Your task to perform on an android device: snooze an email in the gmail app Image 0: 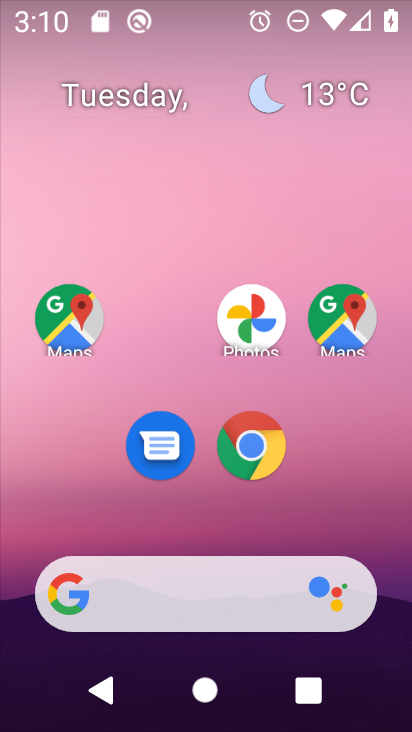
Step 0: drag from (354, 523) to (358, 201)
Your task to perform on an android device: snooze an email in the gmail app Image 1: 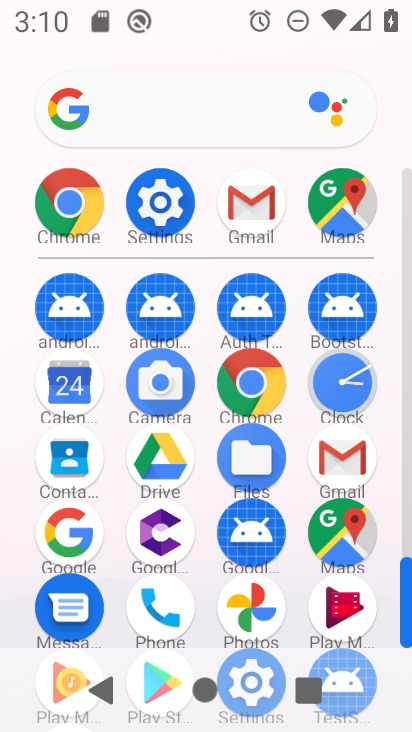
Step 1: click (354, 469)
Your task to perform on an android device: snooze an email in the gmail app Image 2: 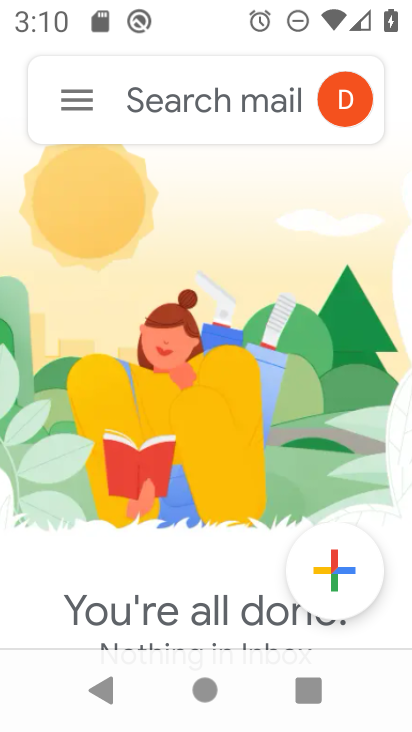
Step 2: click (67, 97)
Your task to perform on an android device: snooze an email in the gmail app Image 3: 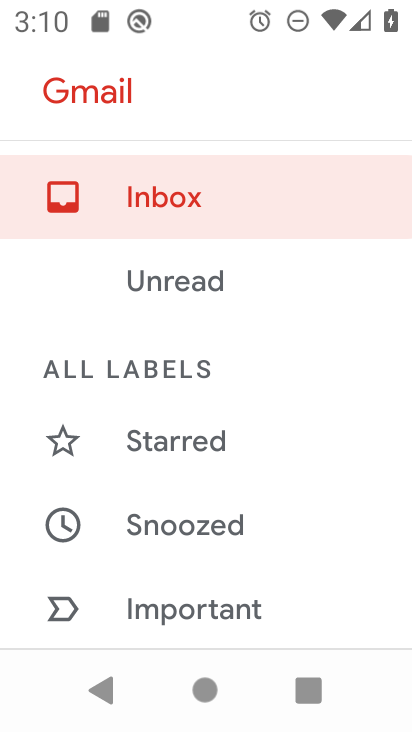
Step 3: drag from (301, 477) to (311, 374)
Your task to perform on an android device: snooze an email in the gmail app Image 4: 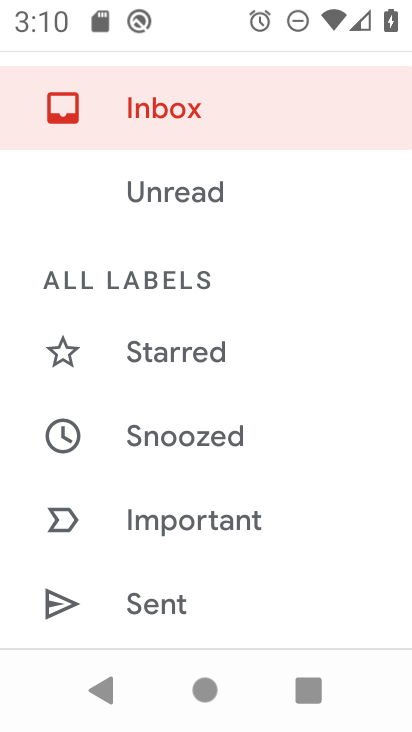
Step 4: drag from (328, 553) to (332, 441)
Your task to perform on an android device: snooze an email in the gmail app Image 5: 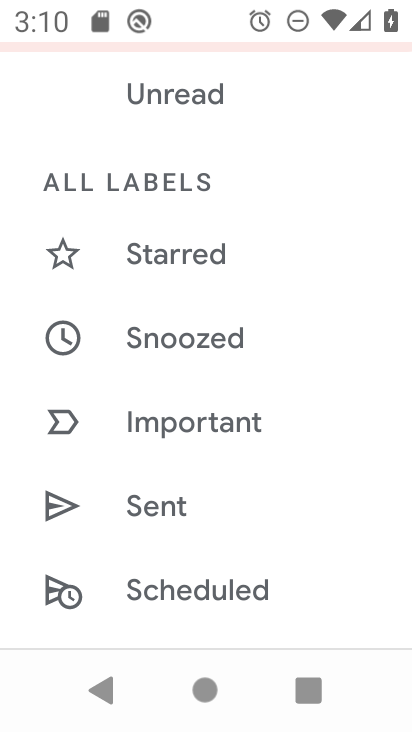
Step 5: drag from (325, 586) to (325, 451)
Your task to perform on an android device: snooze an email in the gmail app Image 6: 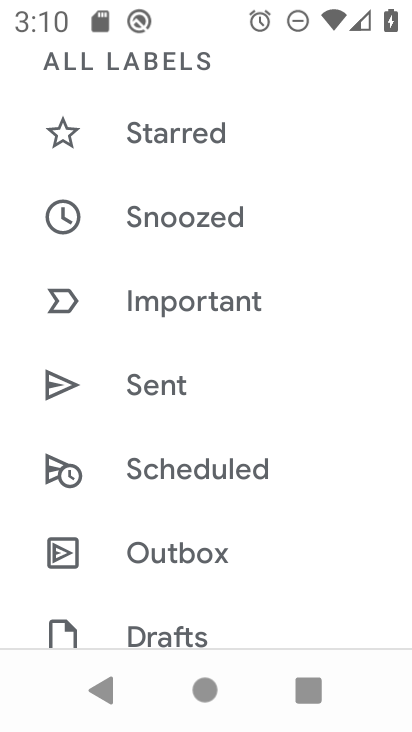
Step 6: drag from (308, 582) to (307, 472)
Your task to perform on an android device: snooze an email in the gmail app Image 7: 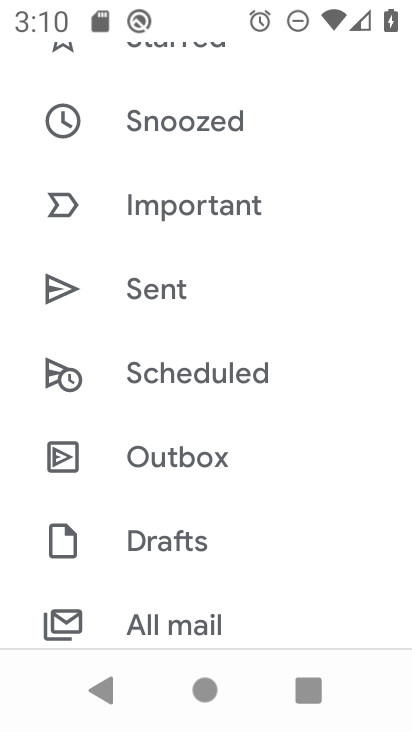
Step 7: drag from (315, 589) to (317, 485)
Your task to perform on an android device: snooze an email in the gmail app Image 8: 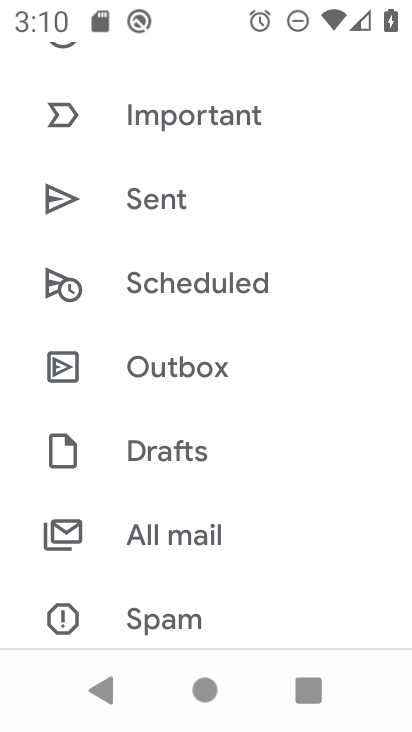
Step 8: drag from (319, 606) to (324, 514)
Your task to perform on an android device: snooze an email in the gmail app Image 9: 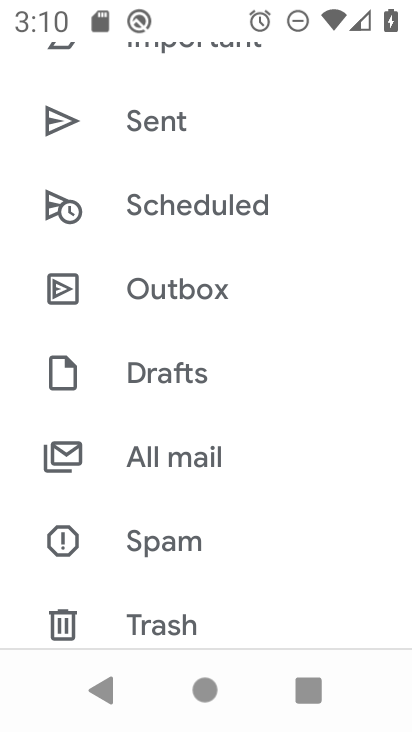
Step 9: drag from (313, 608) to (315, 496)
Your task to perform on an android device: snooze an email in the gmail app Image 10: 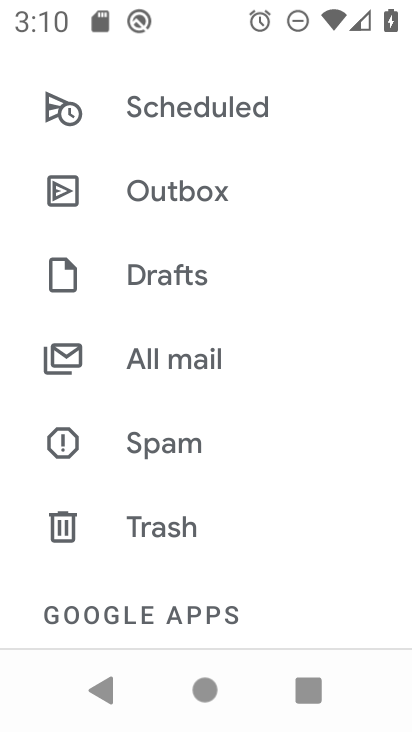
Step 10: drag from (333, 618) to (337, 501)
Your task to perform on an android device: snooze an email in the gmail app Image 11: 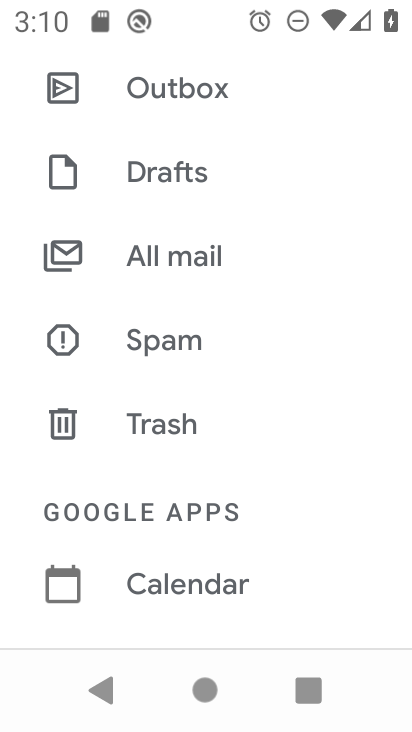
Step 11: drag from (334, 599) to (333, 469)
Your task to perform on an android device: snooze an email in the gmail app Image 12: 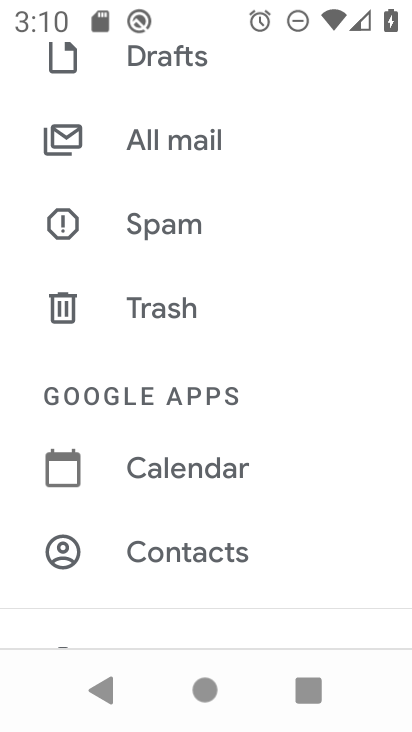
Step 12: drag from (335, 598) to (346, 493)
Your task to perform on an android device: snooze an email in the gmail app Image 13: 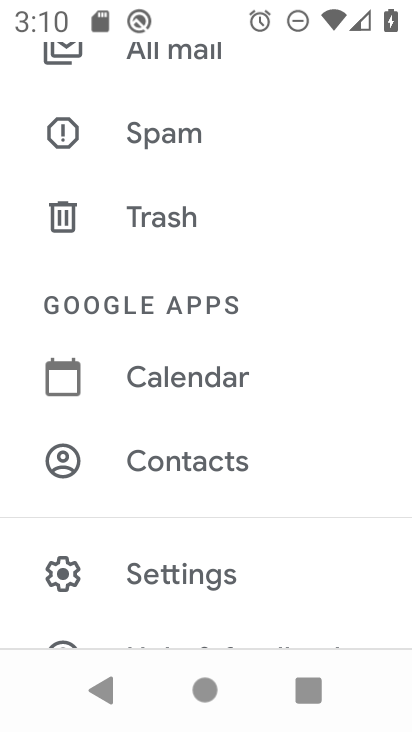
Step 13: drag from (310, 569) to (313, 440)
Your task to perform on an android device: snooze an email in the gmail app Image 14: 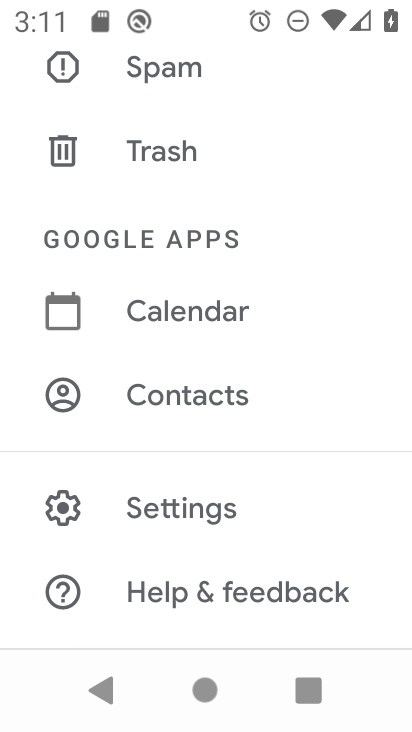
Step 14: drag from (320, 302) to (327, 424)
Your task to perform on an android device: snooze an email in the gmail app Image 15: 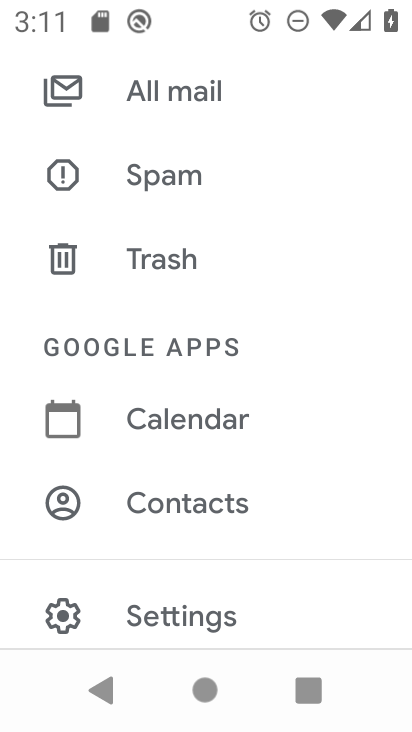
Step 15: drag from (332, 286) to (331, 365)
Your task to perform on an android device: snooze an email in the gmail app Image 16: 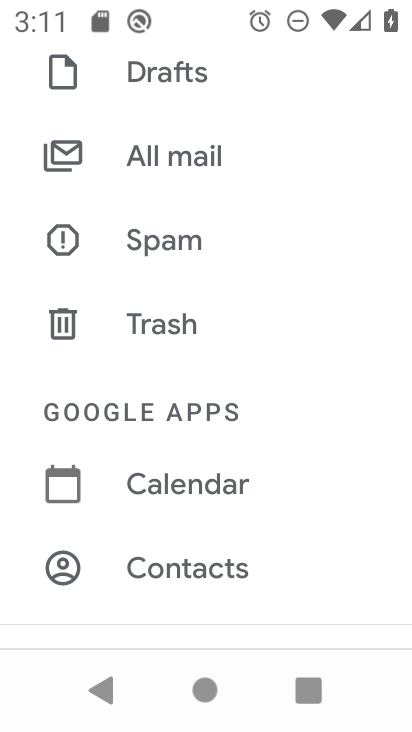
Step 16: drag from (325, 249) to (327, 347)
Your task to perform on an android device: snooze an email in the gmail app Image 17: 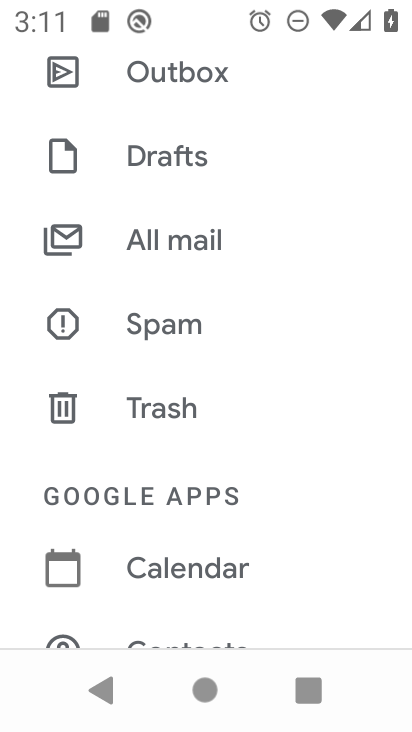
Step 17: drag from (322, 247) to (323, 348)
Your task to perform on an android device: snooze an email in the gmail app Image 18: 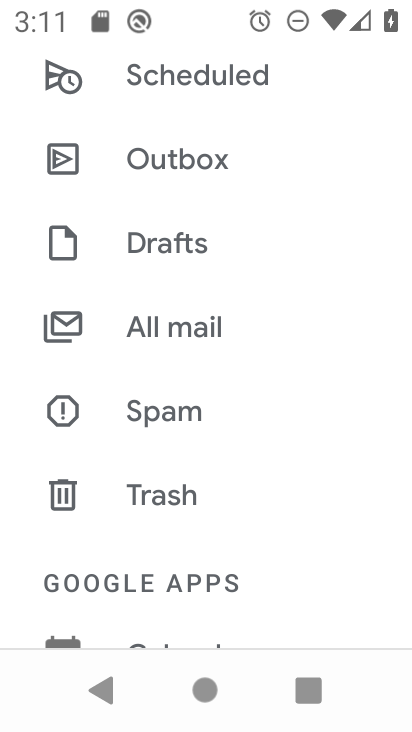
Step 18: drag from (314, 211) to (320, 366)
Your task to perform on an android device: snooze an email in the gmail app Image 19: 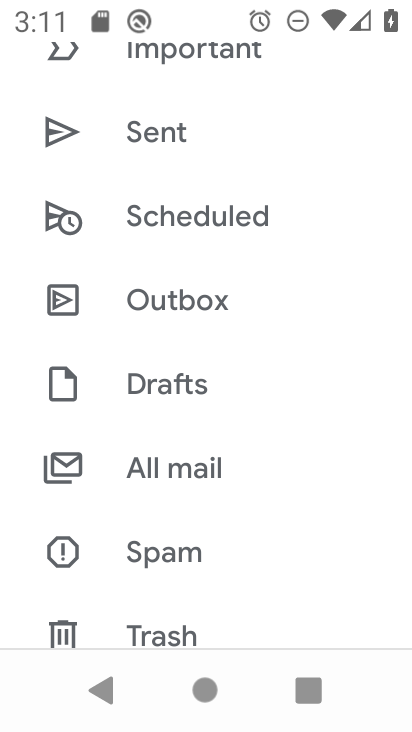
Step 19: drag from (325, 188) to (327, 348)
Your task to perform on an android device: snooze an email in the gmail app Image 20: 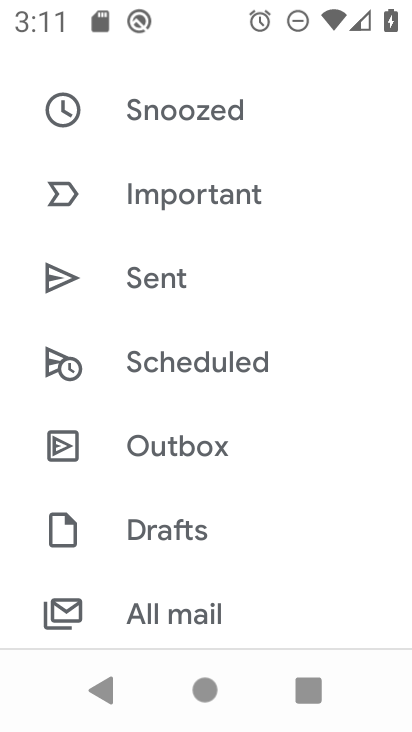
Step 20: click (258, 125)
Your task to perform on an android device: snooze an email in the gmail app Image 21: 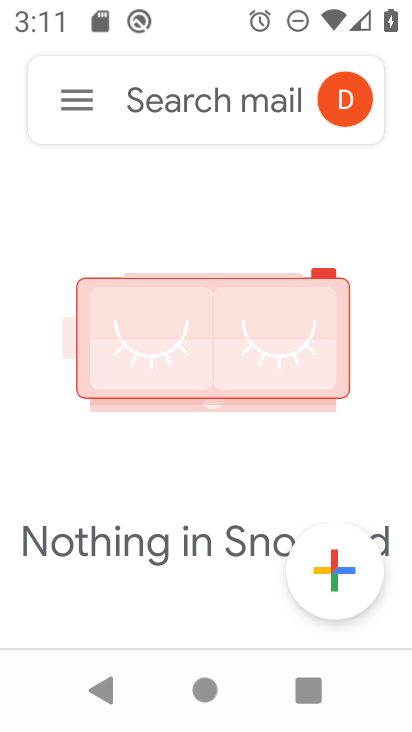
Step 21: task complete